Your task to perform on an android device: refresh tabs in the chrome app Image 0: 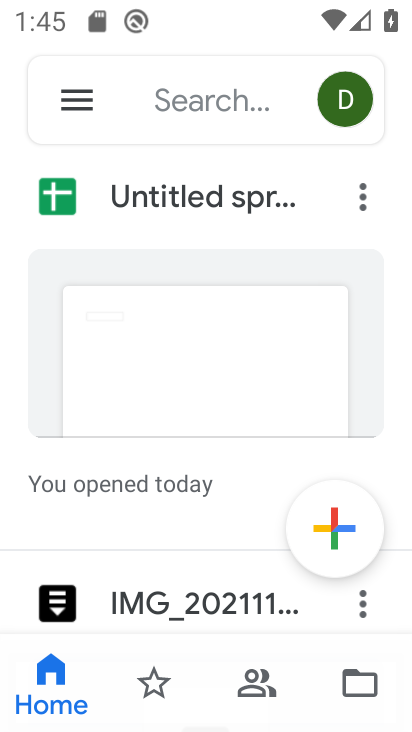
Step 0: press home button
Your task to perform on an android device: refresh tabs in the chrome app Image 1: 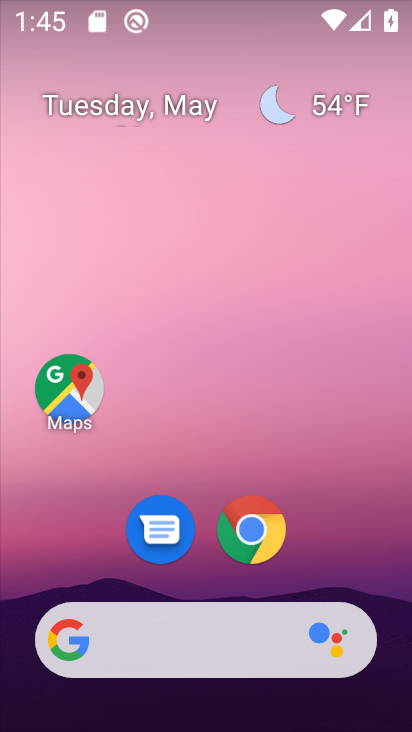
Step 1: click (249, 523)
Your task to perform on an android device: refresh tabs in the chrome app Image 2: 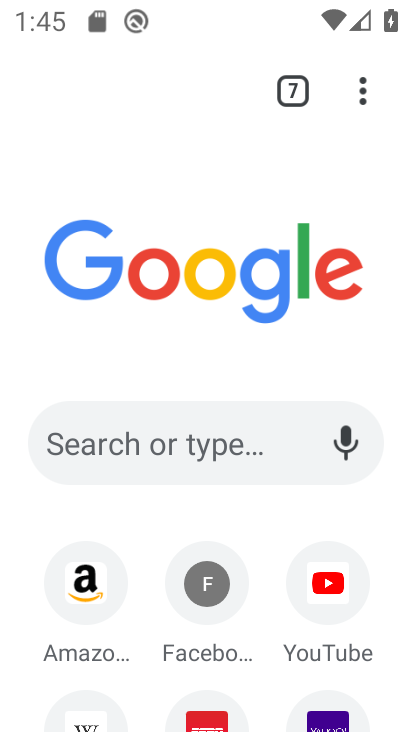
Step 2: click (371, 86)
Your task to perform on an android device: refresh tabs in the chrome app Image 3: 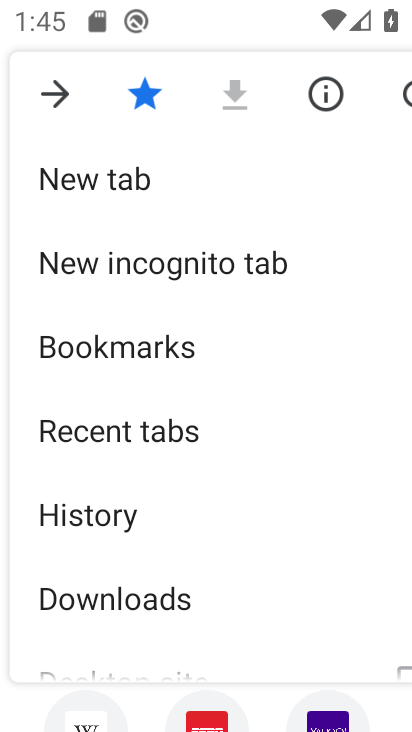
Step 3: click (400, 90)
Your task to perform on an android device: refresh tabs in the chrome app Image 4: 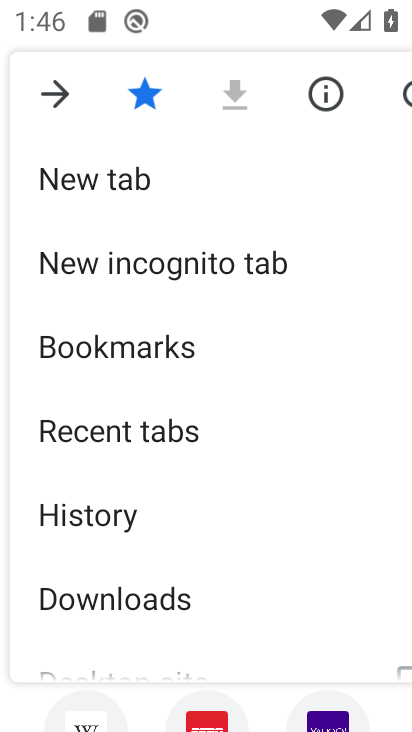
Step 4: click (410, 93)
Your task to perform on an android device: refresh tabs in the chrome app Image 5: 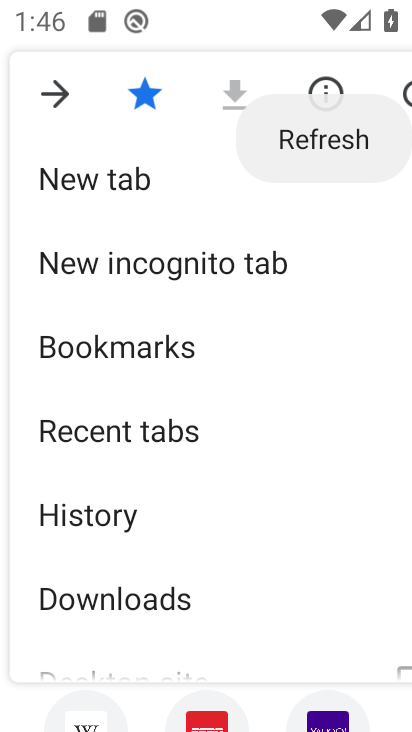
Step 5: task complete